Your task to perform on an android device: change text size in settings app Image 0: 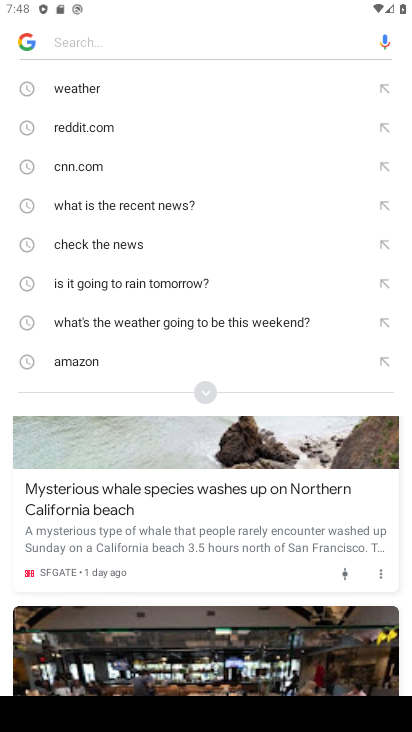
Step 0: press home button
Your task to perform on an android device: change text size in settings app Image 1: 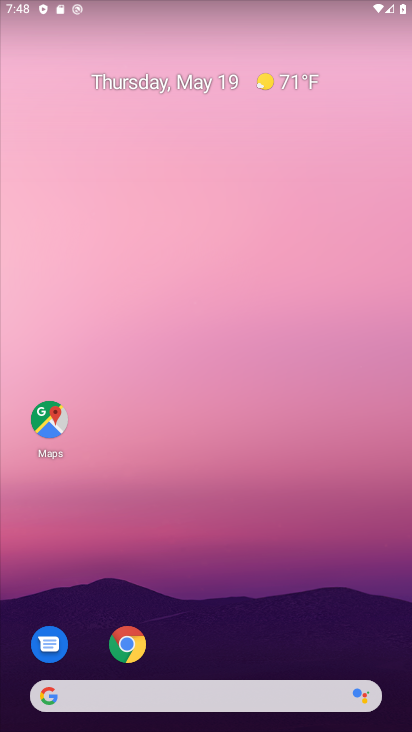
Step 1: drag from (283, 707) to (195, 203)
Your task to perform on an android device: change text size in settings app Image 2: 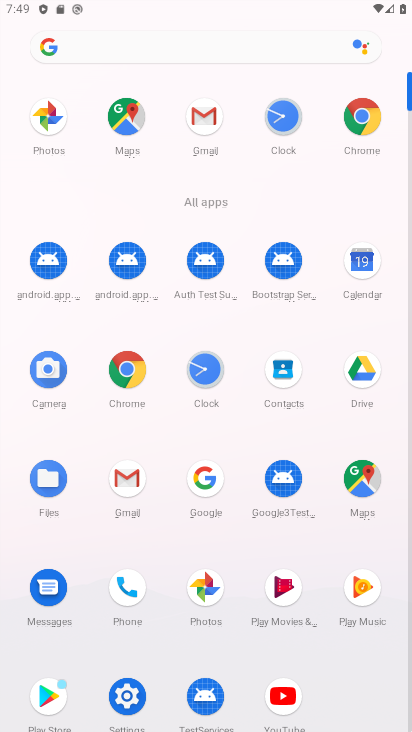
Step 2: click (129, 684)
Your task to perform on an android device: change text size in settings app Image 3: 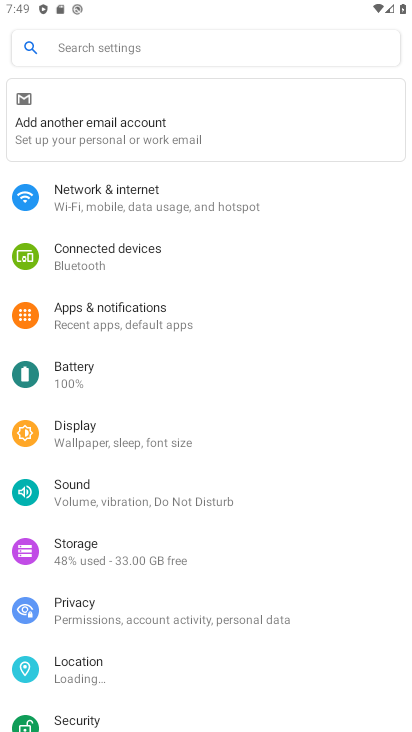
Step 3: click (148, 48)
Your task to perform on an android device: change text size in settings app Image 4: 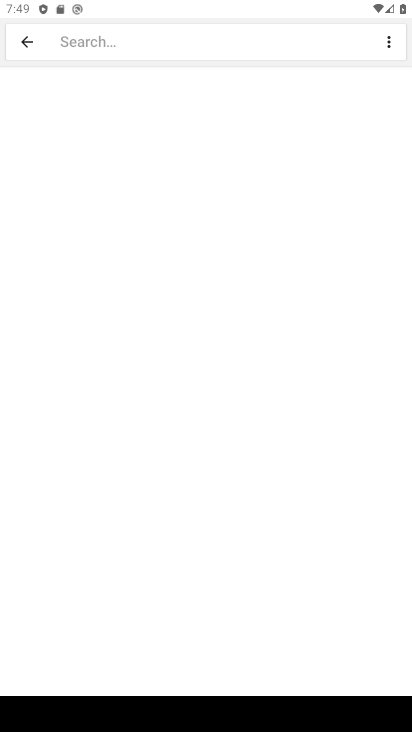
Step 4: drag from (383, 704) to (320, 542)
Your task to perform on an android device: change text size in settings app Image 5: 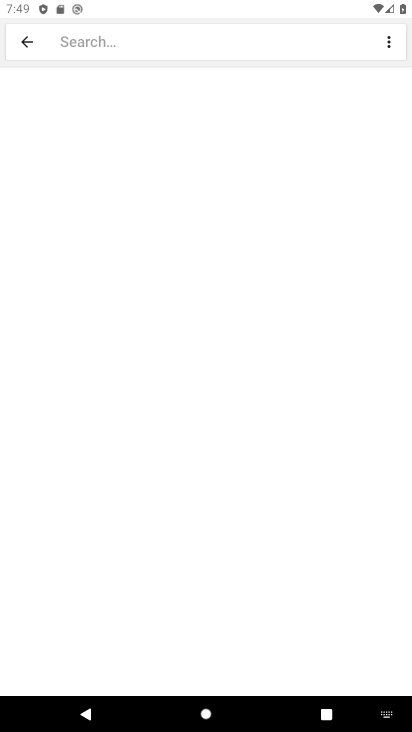
Step 5: click (400, 717)
Your task to perform on an android device: change text size in settings app Image 6: 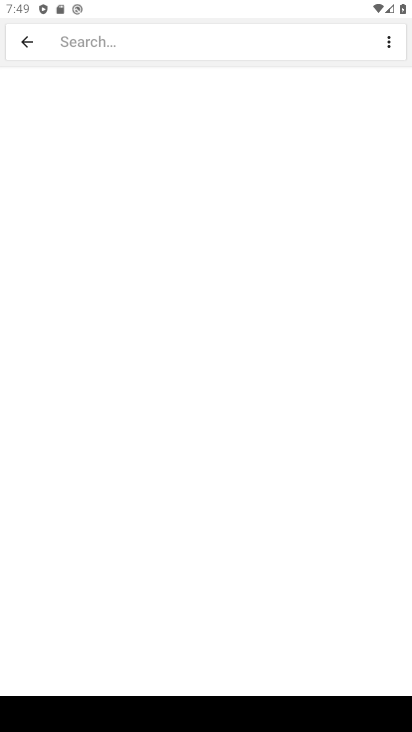
Step 6: drag from (389, 711) to (320, 562)
Your task to perform on an android device: change text size in settings app Image 7: 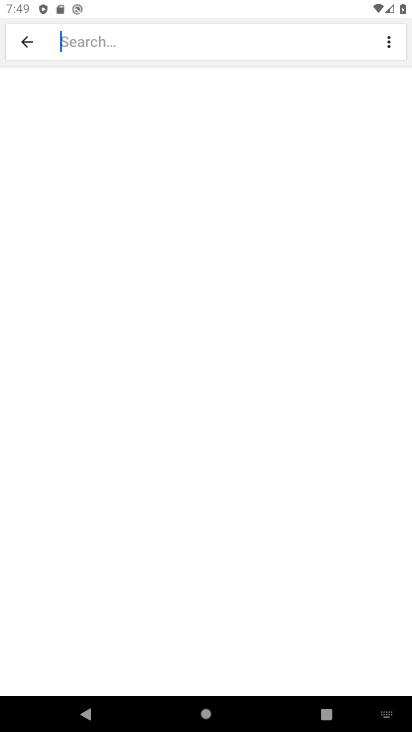
Step 7: click (387, 706)
Your task to perform on an android device: change text size in settings app Image 8: 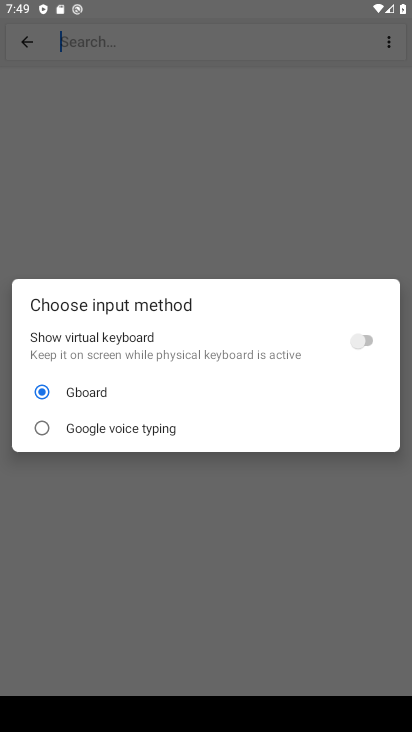
Step 8: click (368, 349)
Your task to perform on an android device: change text size in settings app Image 9: 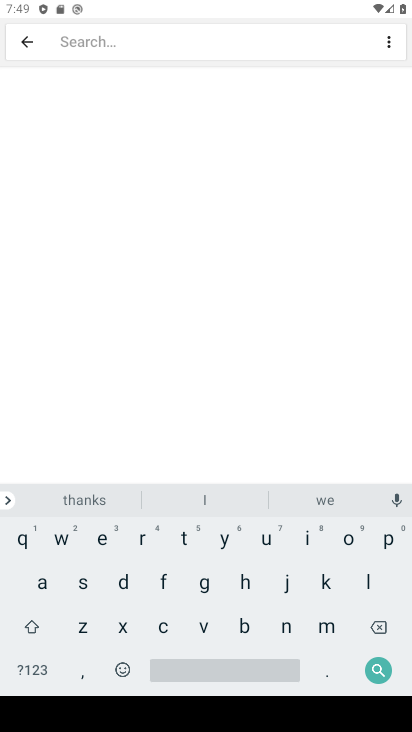
Step 9: click (79, 588)
Your task to perform on an android device: change text size in settings app Image 10: 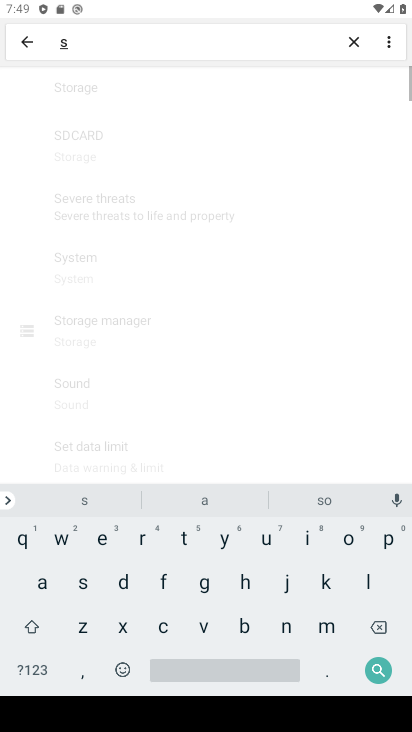
Step 10: click (300, 541)
Your task to perform on an android device: change text size in settings app Image 11: 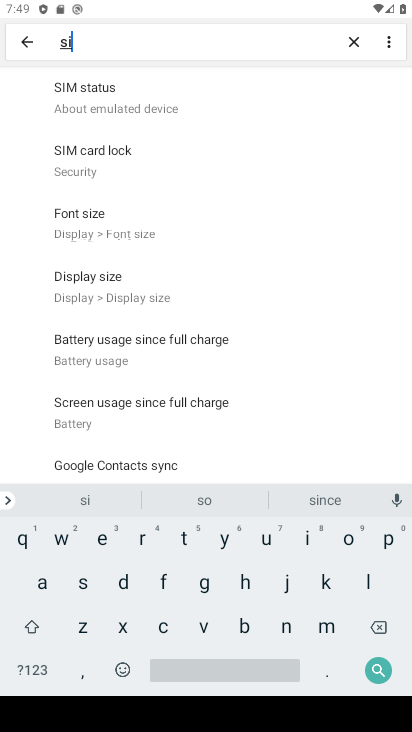
Step 11: click (75, 625)
Your task to perform on an android device: change text size in settings app Image 12: 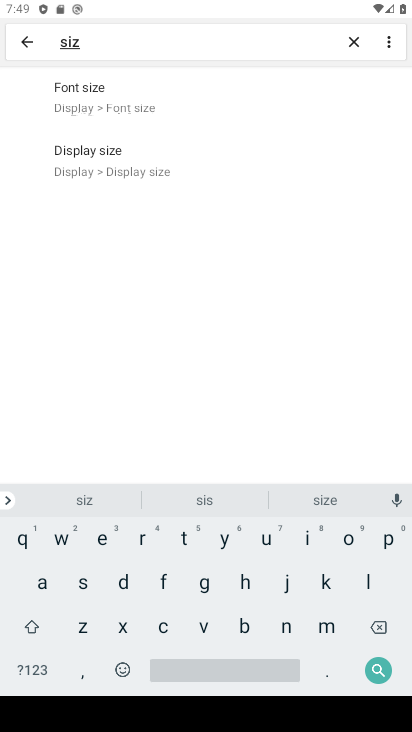
Step 12: click (120, 103)
Your task to perform on an android device: change text size in settings app Image 13: 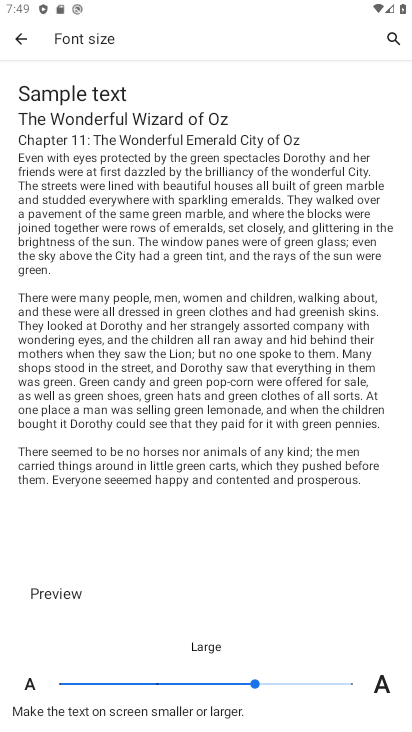
Step 13: click (348, 690)
Your task to perform on an android device: change text size in settings app Image 14: 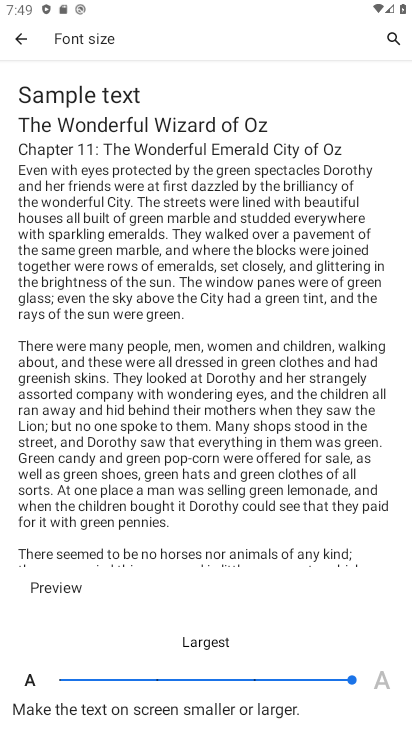
Step 14: task complete